Your task to perform on an android device: open chrome and create a bookmark for the current page Image 0: 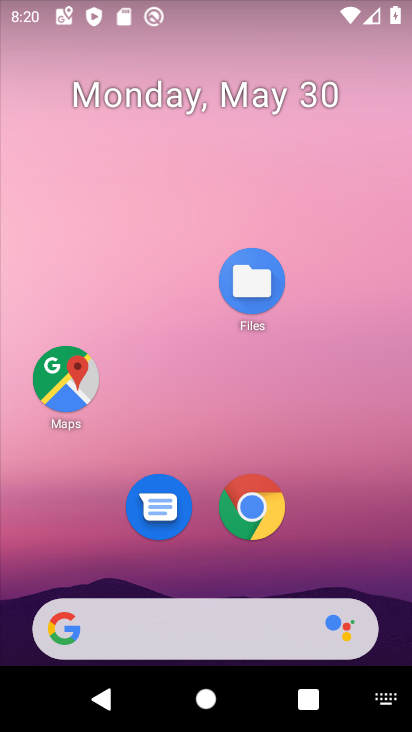
Step 0: click (254, 497)
Your task to perform on an android device: open chrome and create a bookmark for the current page Image 1: 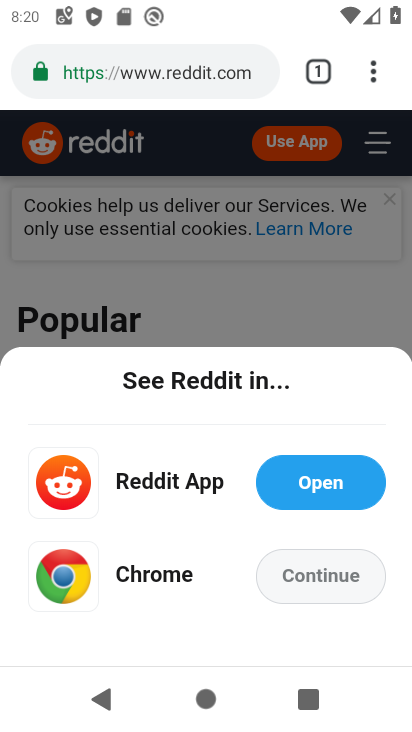
Step 1: click (388, 64)
Your task to perform on an android device: open chrome and create a bookmark for the current page Image 2: 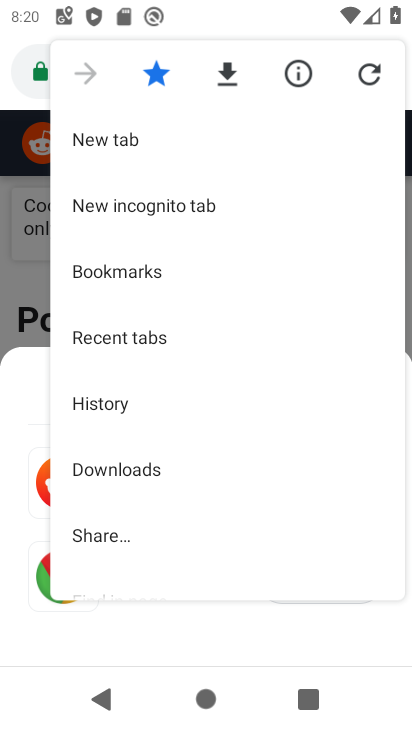
Step 2: task complete